Your task to perform on an android device: What's the weather? Image 0: 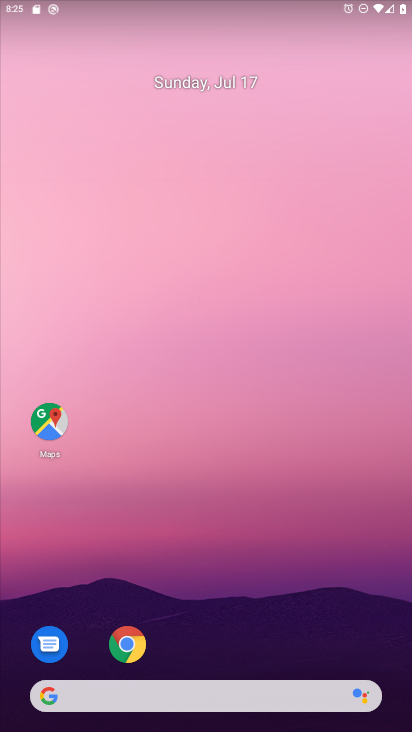
Step 0: drag from (264, 499) to (266, 1)
Your task to perform on an android device: What's the weather? Image 1: 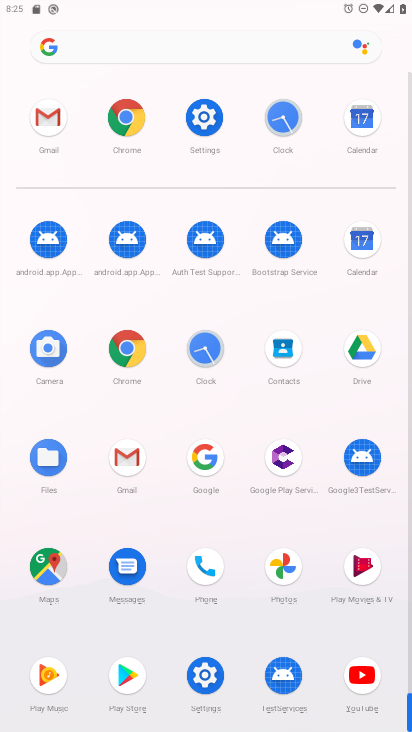
Step 1: click (128, 123)
Your task to perform on an android device: What's the weather? Image 2: 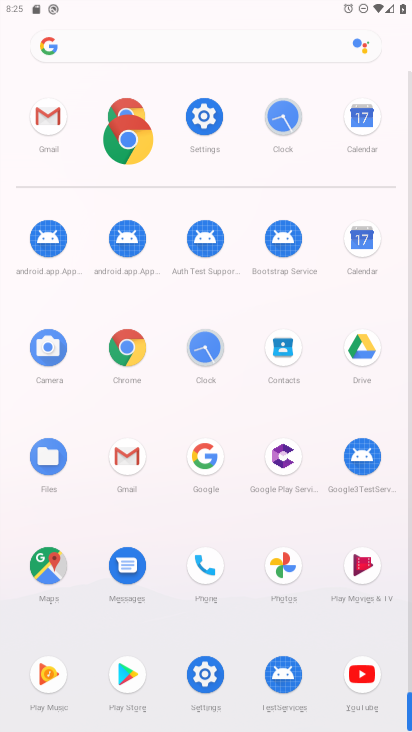
Step 2: click (131, 125)
Your task to perform on an android device: What's the weather? Image 3: 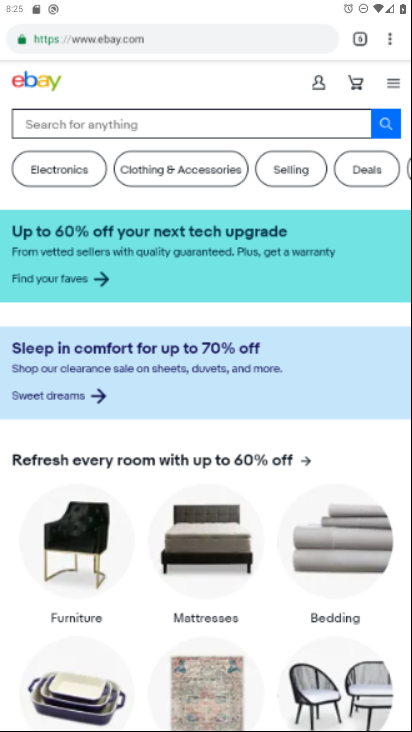
Step 3: click (133, 126)
Your task to perform on an android device: What's the weather? Image 4: 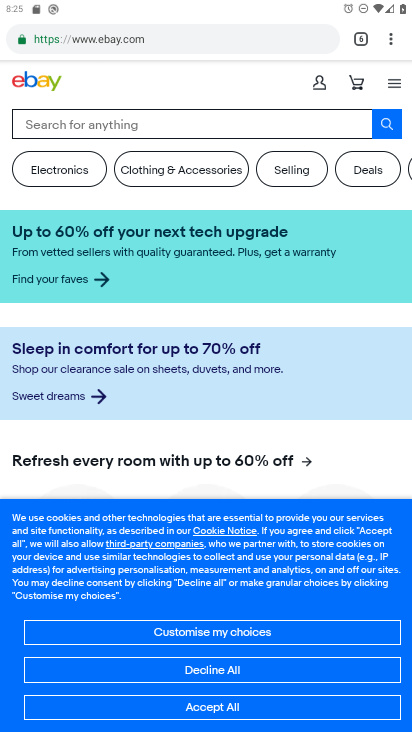
Step 4: click (125, 34)
Your task to perform on an android device: What's the weather? Image 5: 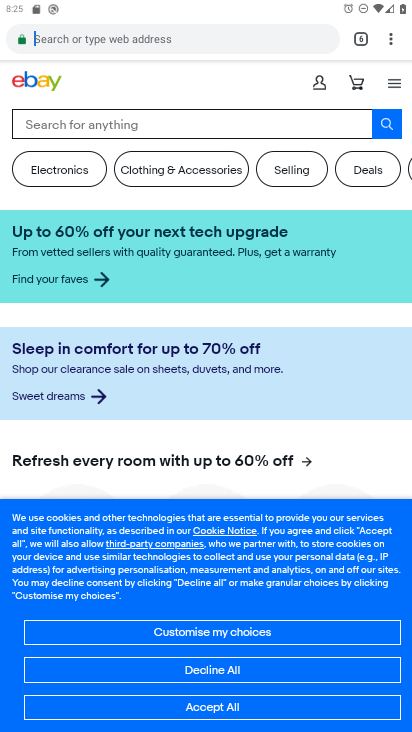
Step 5: click (125, 44)
Your task to perform on an android device: What's the weather? Image 6: 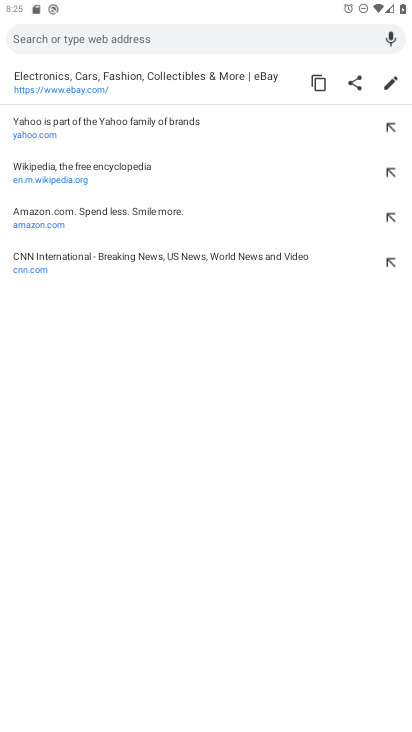
Step 6: click (147, 51)
Your task to perform on an android device: What's the weather? Image 7: 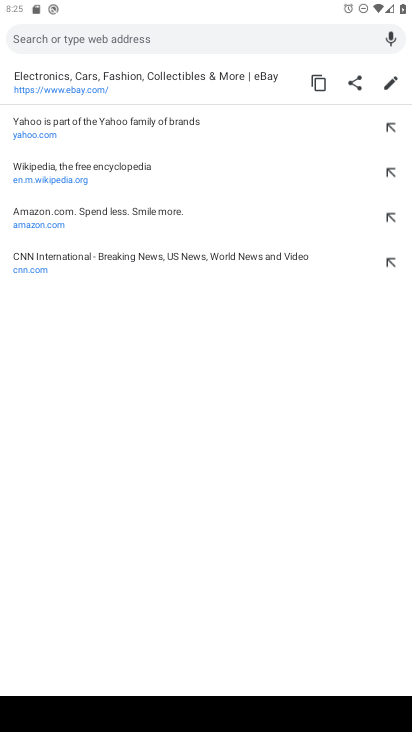
Step 7: click (148, 52)
Your task to perform on an android device: What's the weather? Image 8: 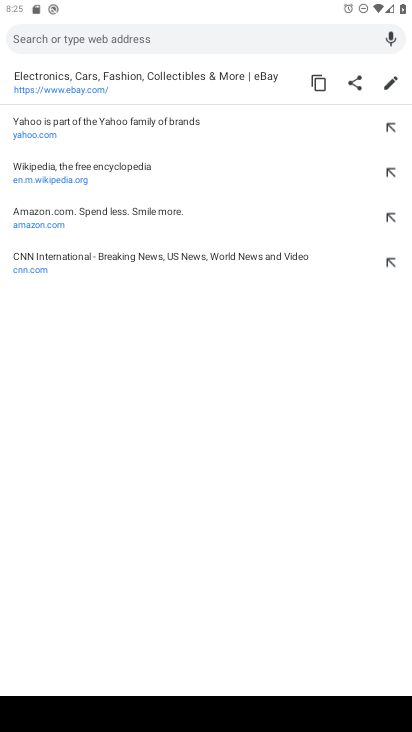
Step 8: type "what's weather"
Your task to perform on an android device: What's the weather? Image 9: 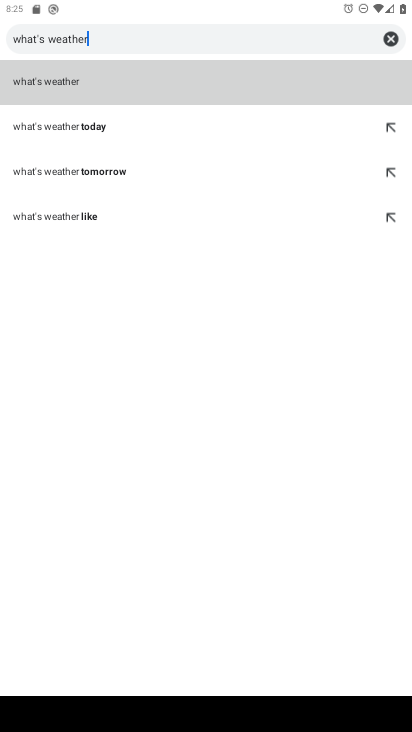
Step 9: click (77, 83)
Your task to perform on an android device: What's the weather? Image 10: 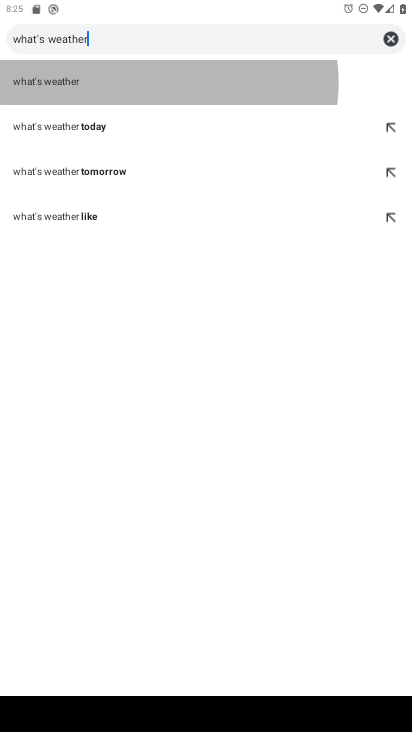
Step 10: click (79, 83)
Your task to perform on an android device: What's the weather? Image 11: 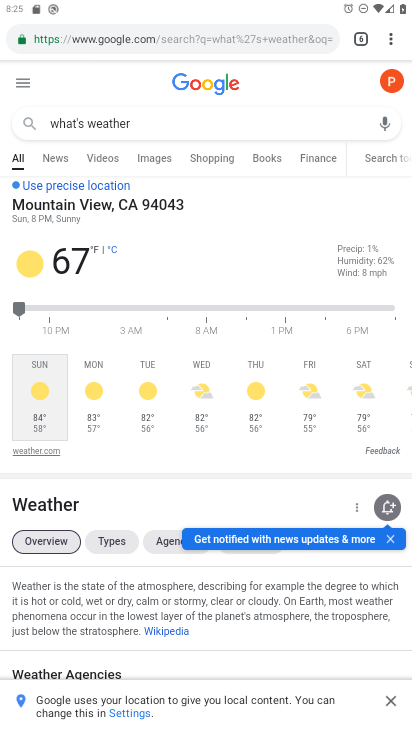
Step 11: task complete